Your task to perform on an android device: change text size in settings app Image 0: 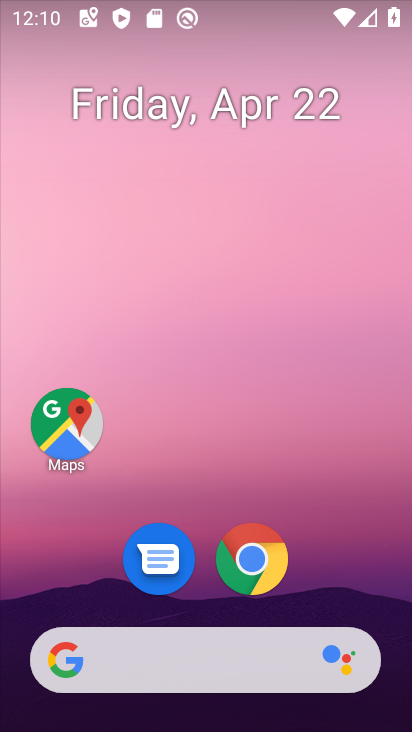
Step 0: drag from (313, 595) to (328, 237)
Your task to perform on an android device: change text size in settings app Image 1: 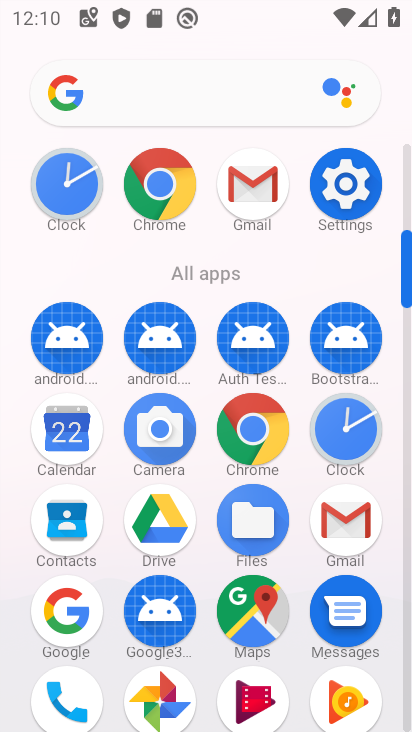
Step 1: click (341, 197)
Your task to perform on an android device: change text size in settings app Image 2: 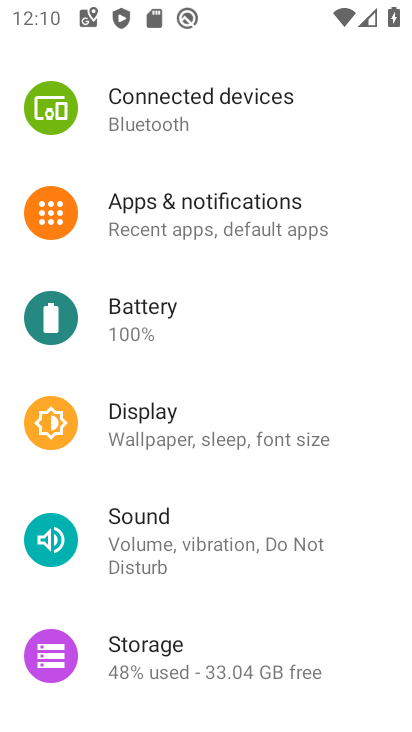
Step 2: click (147, 444)
Your task to perform on an android device: change text size in settings app Image 3: 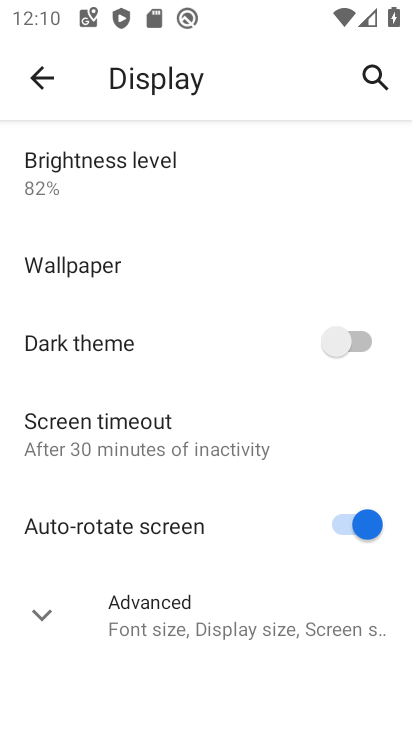
Step 3: click (171, 617)
Your task to perform on an android device: change text size in settings app Image 4: 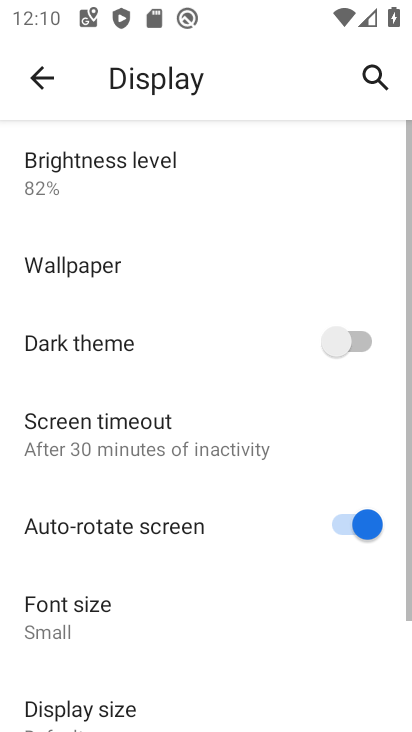
Step 4: click (43, 617)
Your task to perform on an android device: change text size in settings app Image 5: 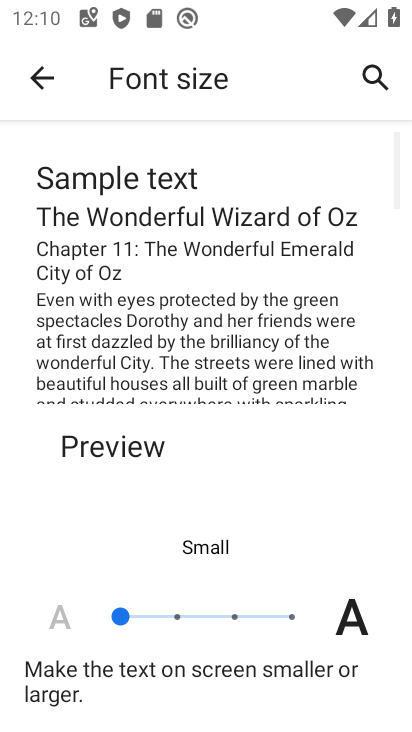
Step 5: click (175, 615)
Your task to perform on an android device: change text size in settings app Image 6: 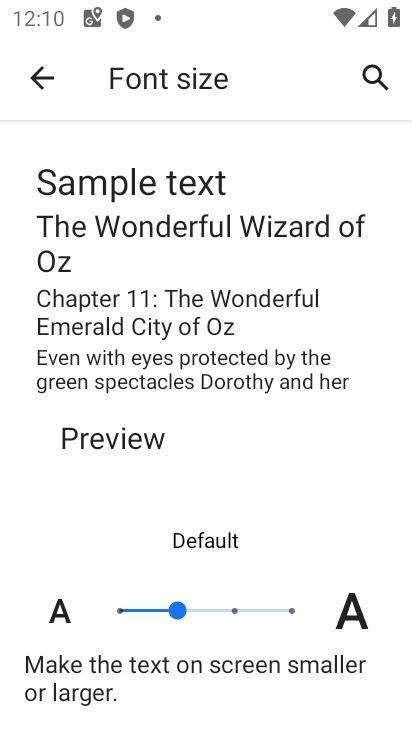
Step 6: task complete